Your task to perform on an android device: read, delete, or share a saved page in the chrome app Image 0: 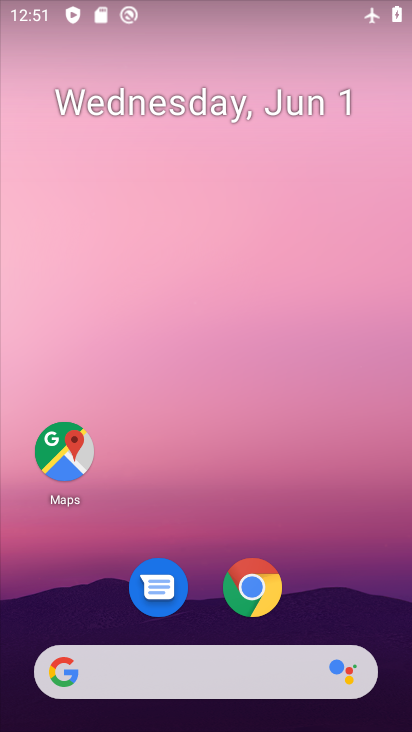
Step 0: click (251, 586)
Your task to perform on an android device: read, delete, or share a saved page in the chrome app Image 1: 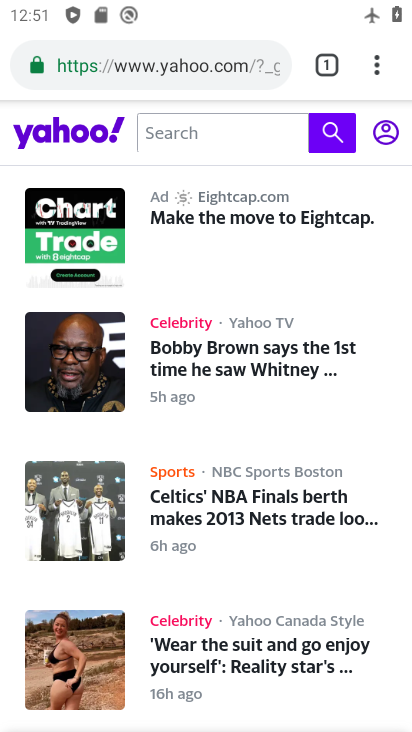
Step 1: click (372, 68)
Your task to perform on an android device: read, delete, or share a saved page in the chrome app Image 2: 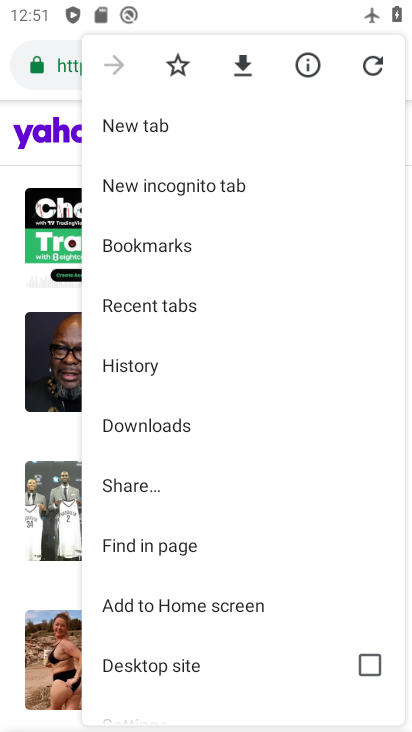
Step 2: click (163, 425)
Your task to perform on an android device: read, delete, or share a saved page in the chrome app Image 3: 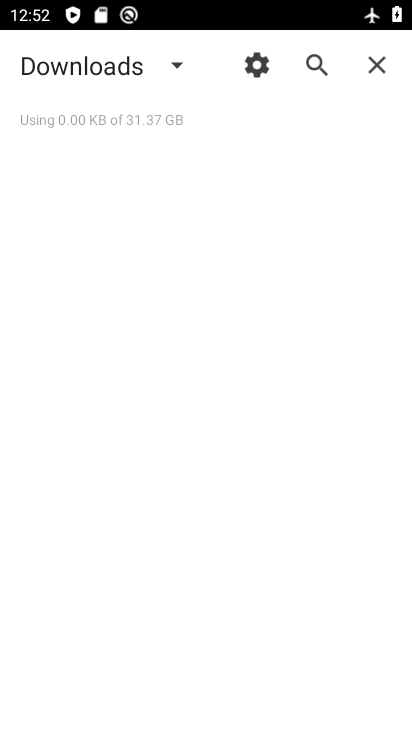
Step 3: task complete